Your task to perform on an android device: Open Chrome and go to settings Image 0: 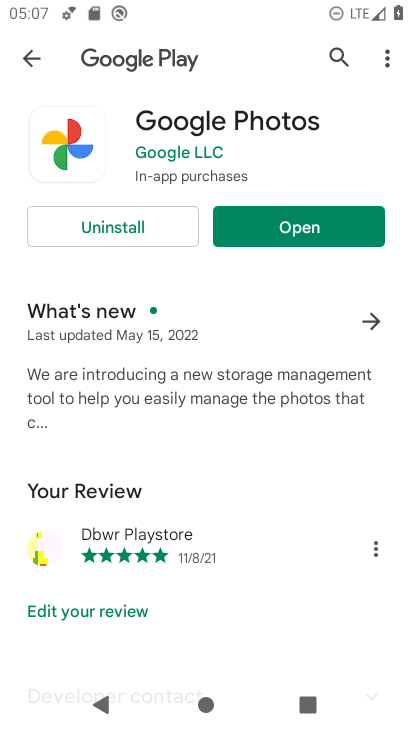
Step 0: drag from (217, 578) to (253, 248)
Your task to perform on an android device: Open Chrome and go to settings Image 1: 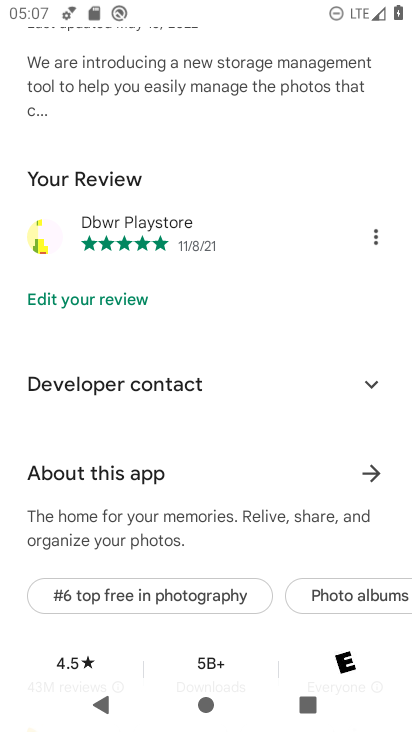
Step 1: press home button
Your task to perform on an android device: Open Chrome and go to settings Image 2: 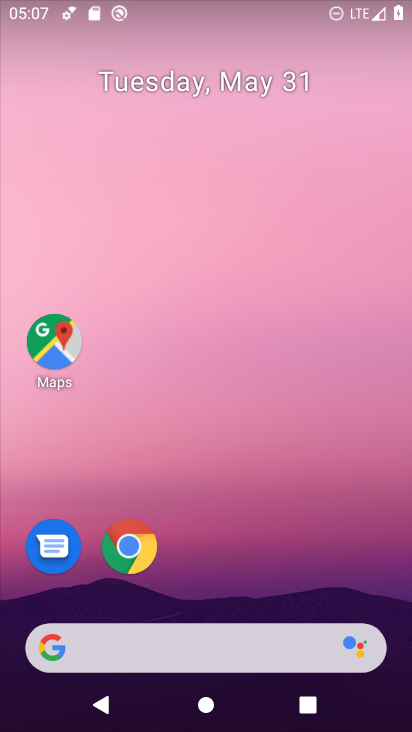
Step 2: drag from (202, 593) to (147, 150)
Your task to perform on an android device: Open Chrome and go to settings Image 3: 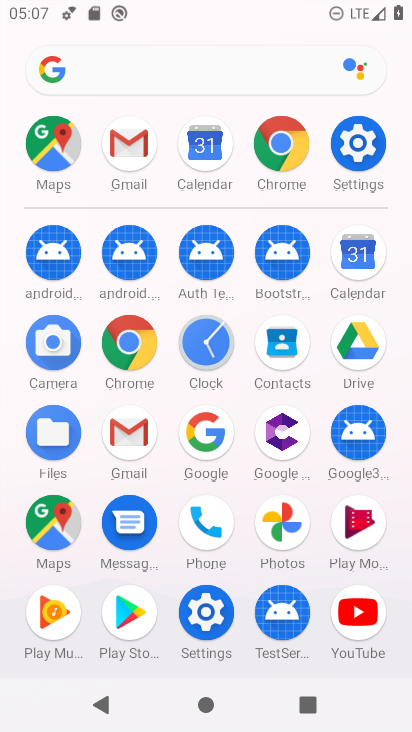
Step 3: click (285, 151)
Your task to perform on an android device: Open Chrome and go to settings Image 4: 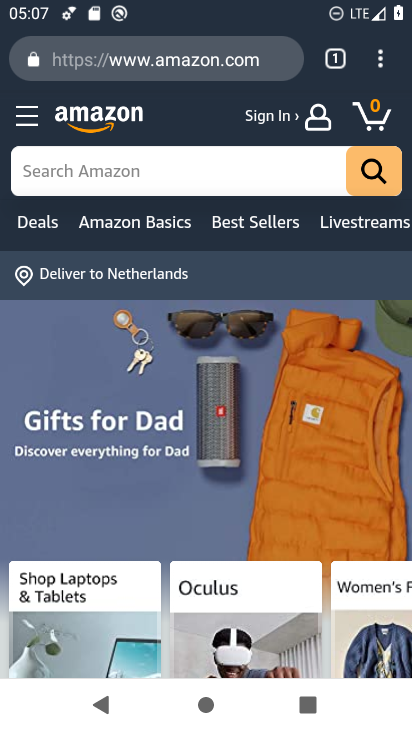
Step 4: click (384, 65)
Your task to perform on an android device: Open Chrome and go to settings Image 5: 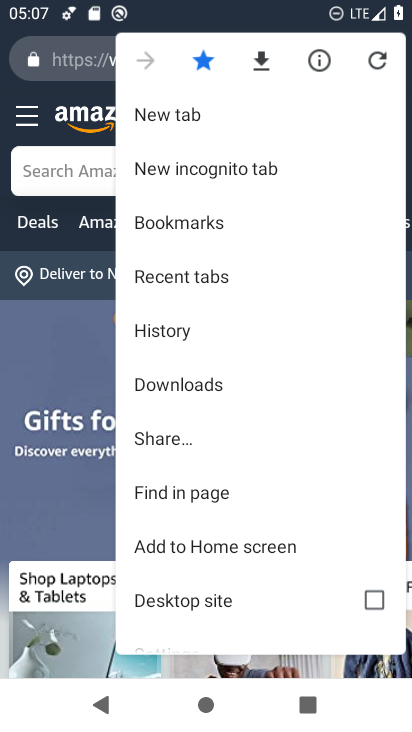
Step 5: drag from (212, 509) to (182, 205)
Your task to perform on an android device: Open Chrome and go to settings Image 6: 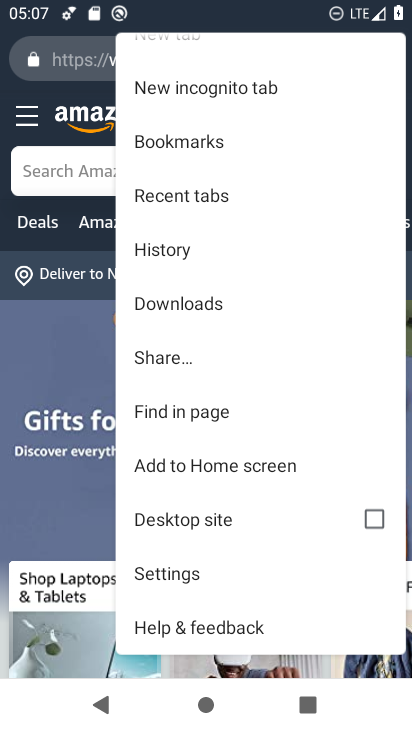
Step 6: click (175, 576)
Your task to perform on an android device: Open Chrome and go to settings Image 7: 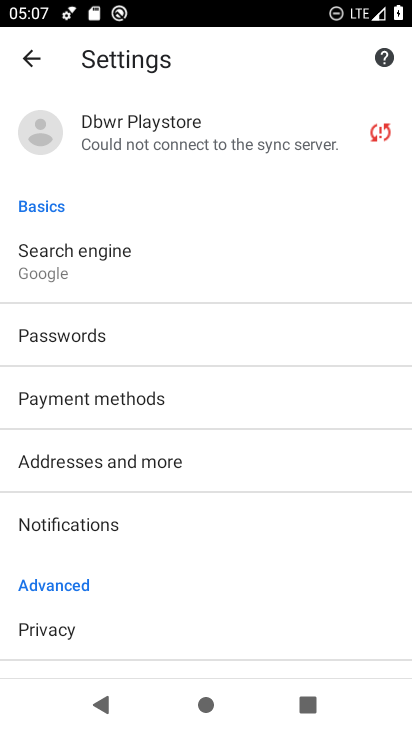
Step 7: task complete